Your task to perform on an android device: star an email in the gmail app Image 0: 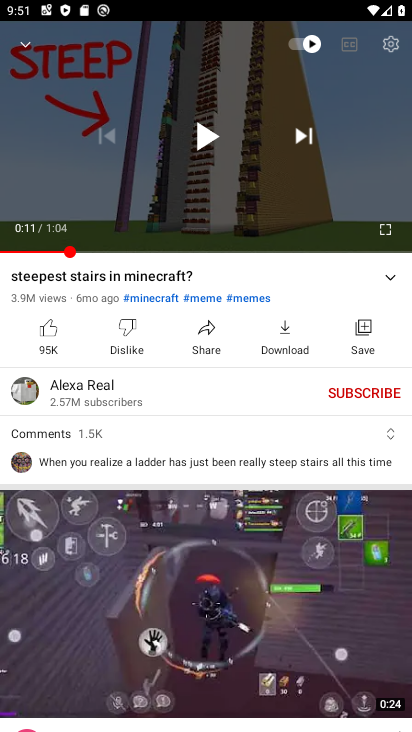
Step 0: press home button
Your task to perform on an android device: star an email in the gmail app Image 1: 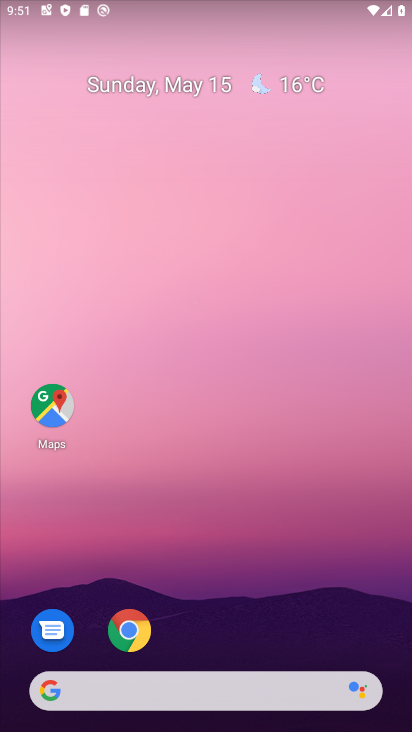
Step 1: drag from (212, 641) to (199, 216)
Your task to perform on an android device: star an email in the gmail app Image 2: 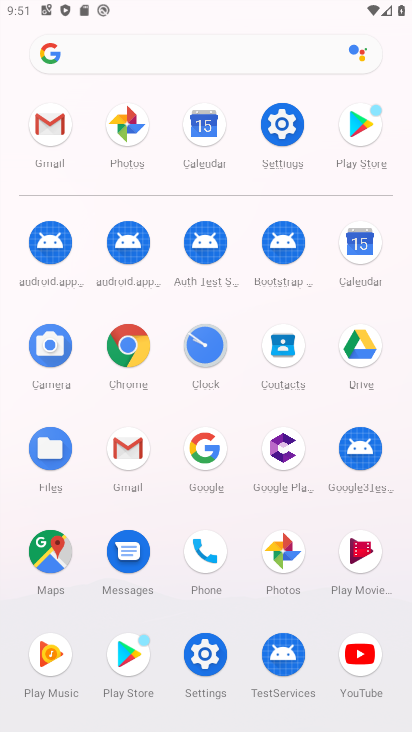
Step 2: click (59, 141)
Your task to perform on an android device: star an email in the gmail app Image 3: 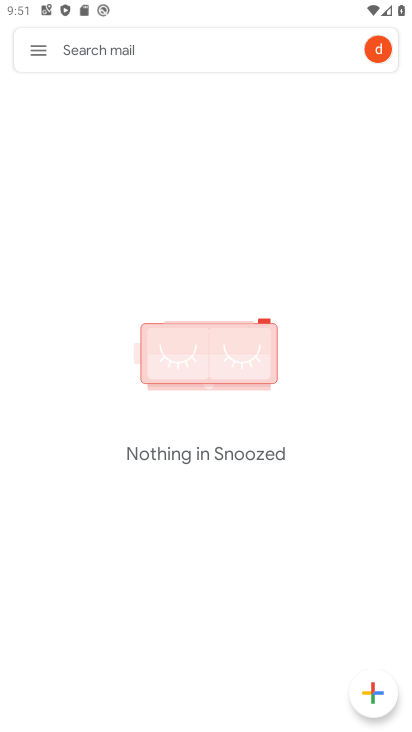
Step 3: click (41, 45)
Your task to perform on an android device: star an email in the gmail app Image 4: 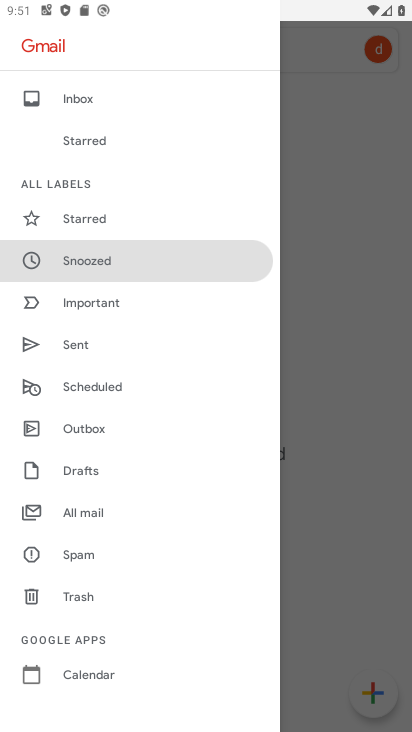
Step 4: click (82, 513)
Your task to perform on an android device: star an email in the gmail app Image 5: 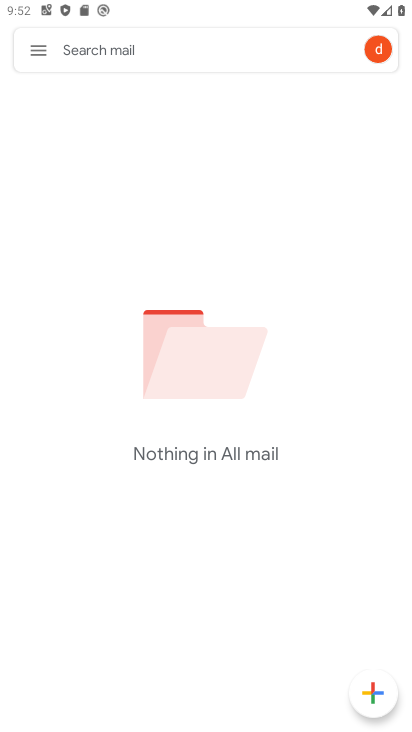
Step 5: task complete